Your task to perform on an android device: Open Google Maps Image 0: 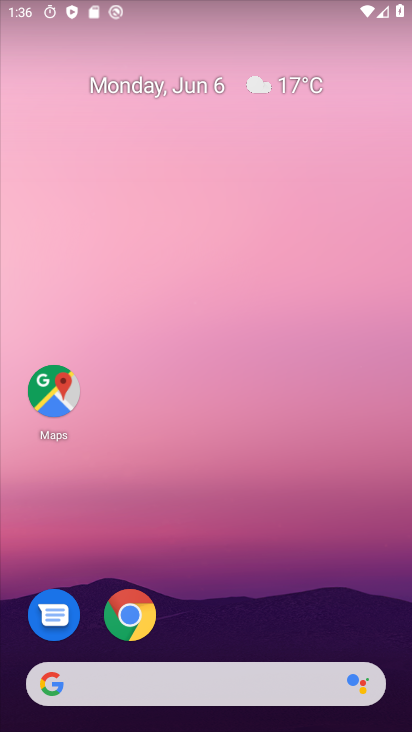
Step 0: click (220, 20)
Your task to perform on an android device: Open Google Maps Image 1: 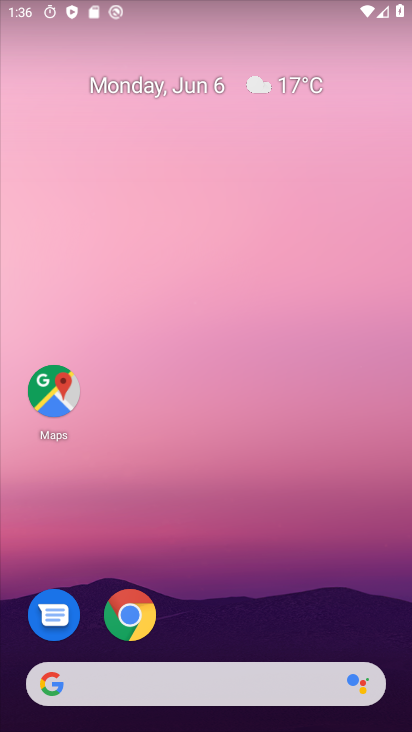
Step 1: drag from (214, 592) to (214, 62)
Your task to perform on an android device: Open Google Maps Image 2: 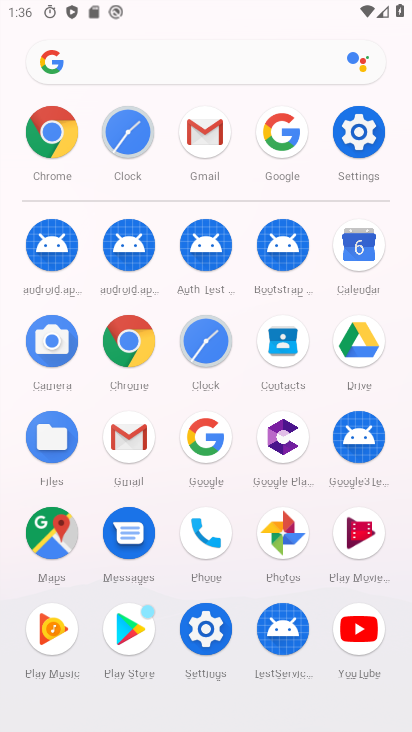
Step 2: click (60, 525)
Your task to perform on an android device: Open Google Maps Image 3: 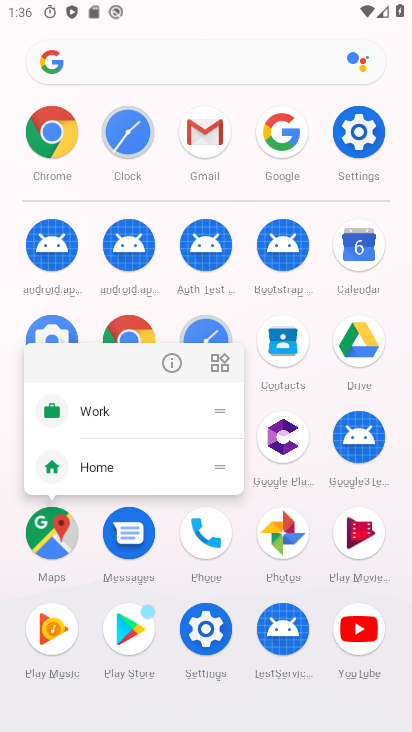
Step 3: click (167, 365)
Your task to perform on an android device: Open Google Maps Image 4: 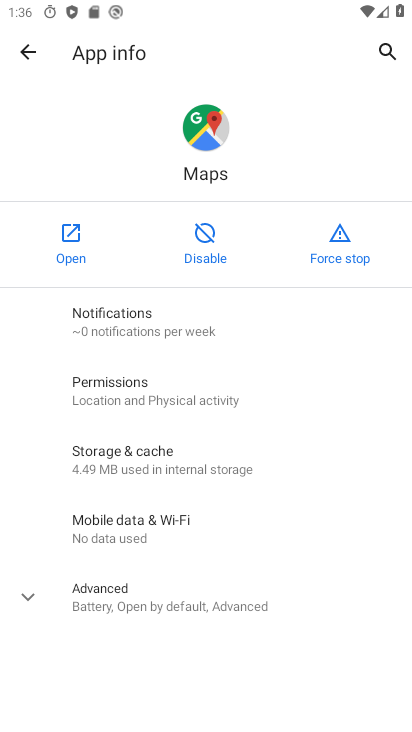
Step 4: click (76, 216)
Your task to perform on an android device: Open Google Maps Image 5: 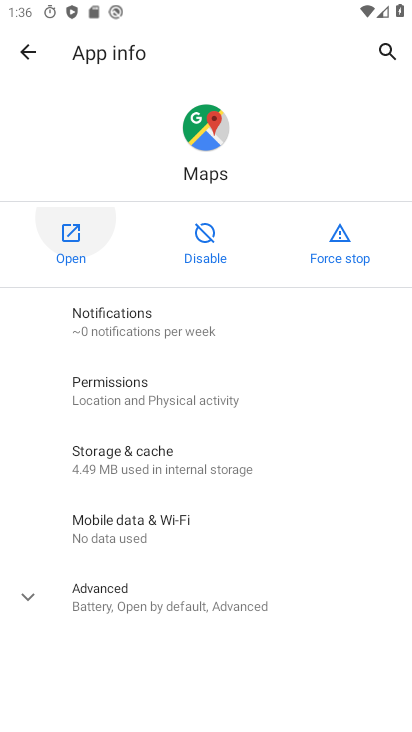
Step 5: click (76, 216)
Your task to perform on an android device: Open Google Maps Image 6: 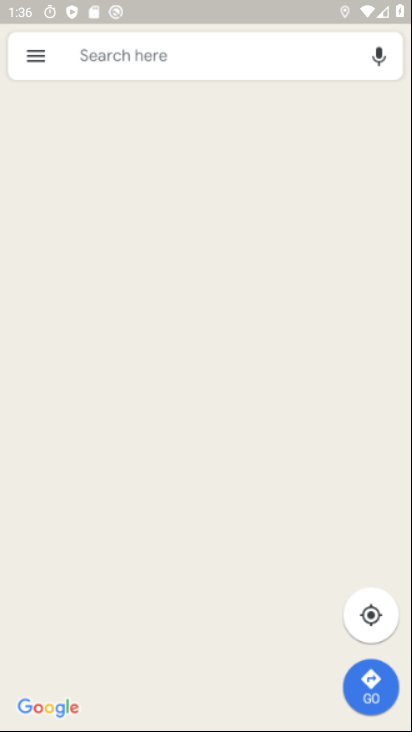
Step 6: drag from (201, 549) to (203, 200)
Your task to perform on an android device: Open Google Maps Image 7: 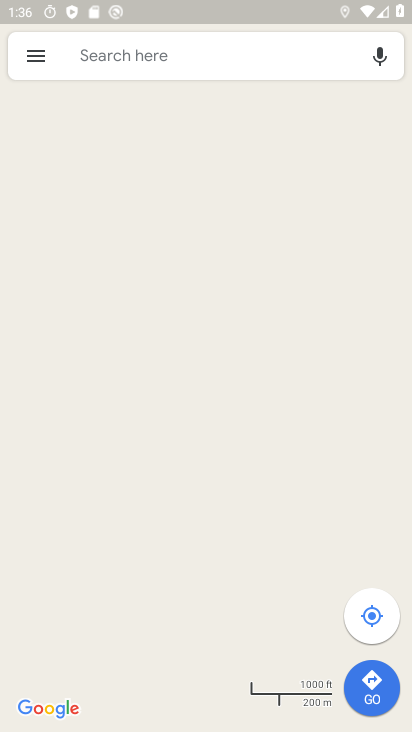
Step 7: drag from (281, 529) to (265, 259)
Your task to perform on an android device: Open Google Maps Image 8: 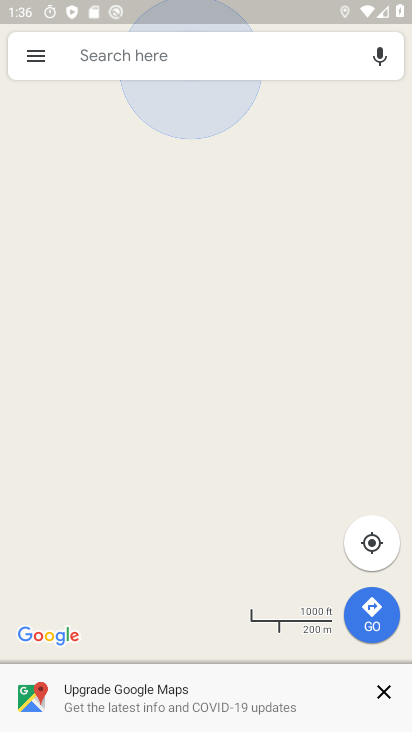
Step 8: drag from (156, 145) to (295, 730)
Your task to perform on an android device: Open Google Maps Image 9: 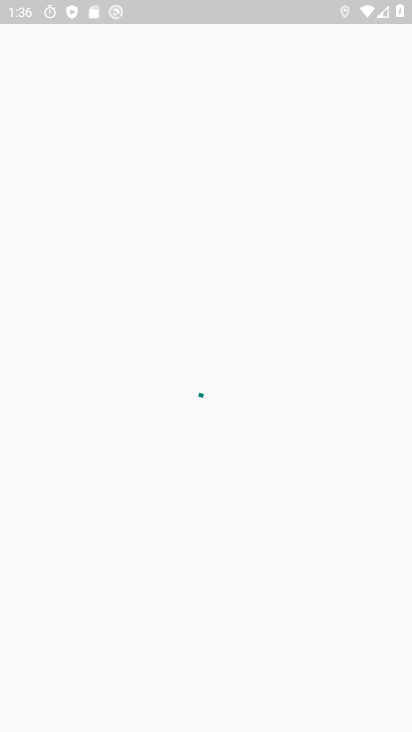
Step 9: drag from (217, 513) to (218, 210)
Your task to perform on an android device: Open Google Maps Image 10: 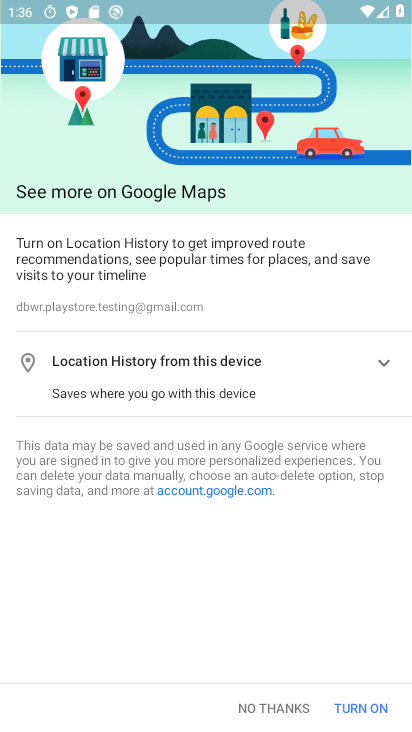
Step 10: click (277, 693)
Your task to perform on an android device: Open Google Maps Image 11: 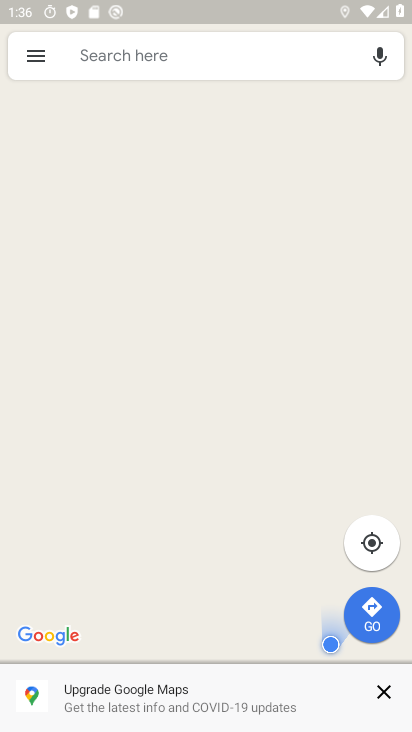
Step 11: task complete